Your task to perform on an android device: Open settings on Google Maps Image 0: 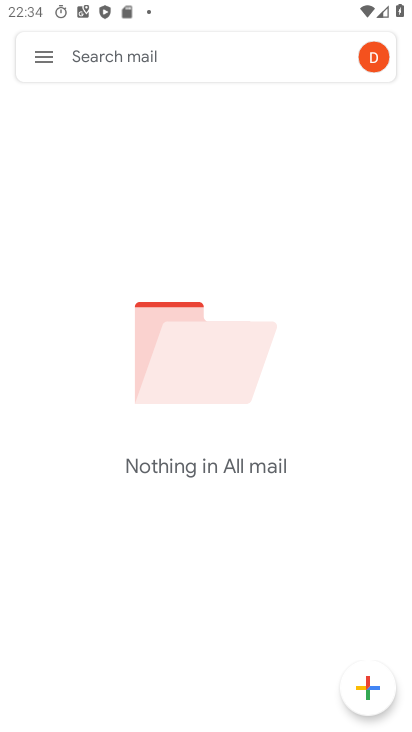
Step 0: press home button
Your task to perform on an android device: Open settings on Google Maps Image 1: 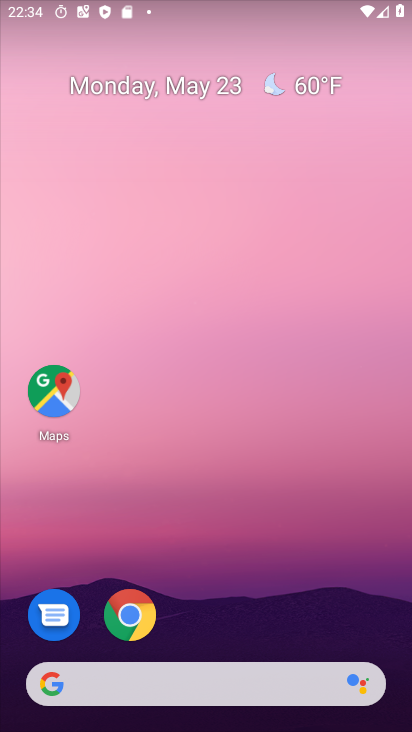
Step 1: click (55, 393)
Your task to perform on an android device: Open settings on Google Maps Image 2: 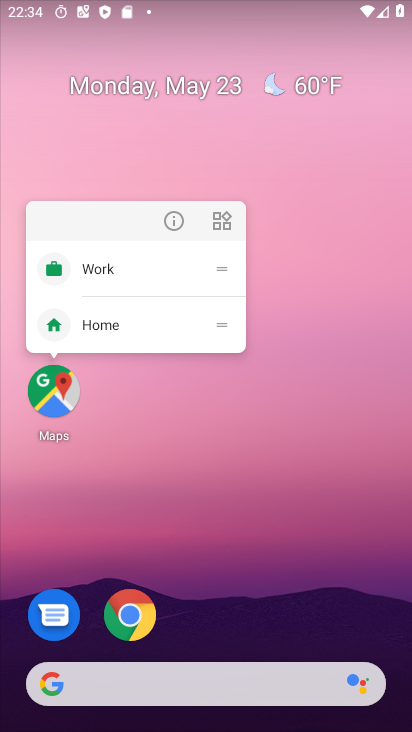
Step 2: click (56, 393)
Your task to perform on an android device: Open settings on Google Maps Image 3: 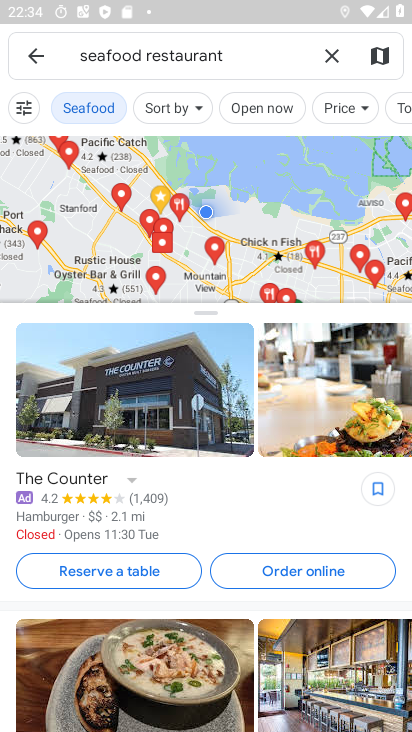
Step 3: click (329, 61)
Your task to perform on an android device: Open settings on Google Maps Image 4: 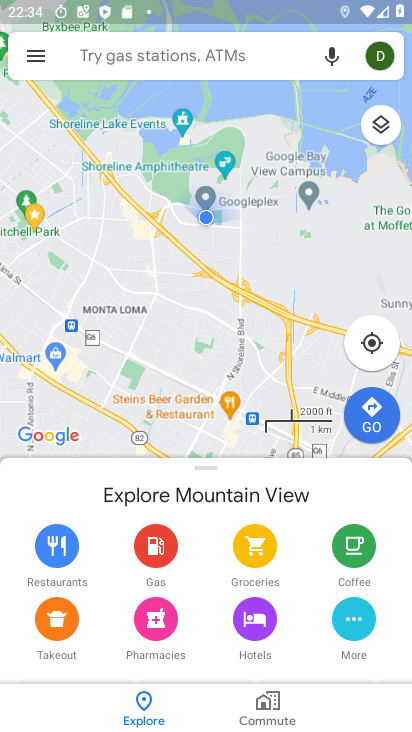
Step 4: click (36, 52)
Your task to perform on an android device: Open settings on Google Maps Image 5: 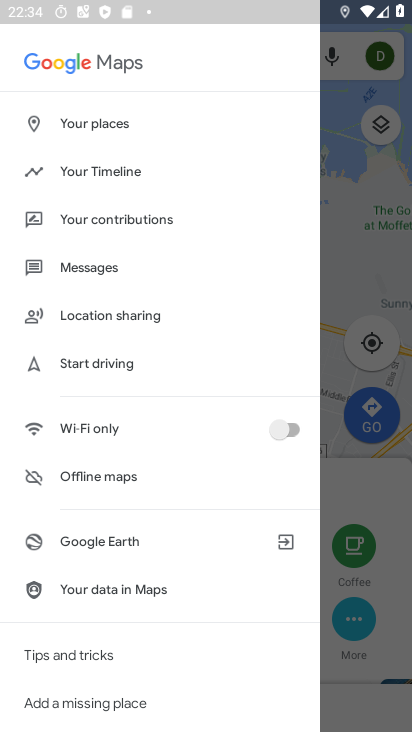
Step 5: drag from (206, 592) to (155, 90)
Your task to perform on an android device: Open settings on Google Maps Image 6: 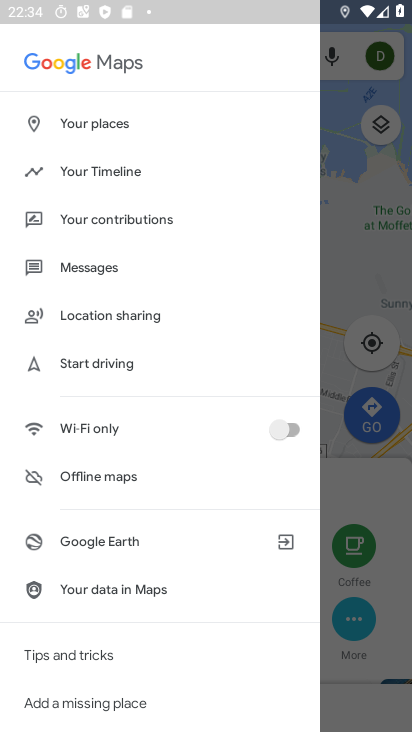
Step 6: drag from (81, 627) to (106, 199)
Your task to perform on an android device: Open settings on Google Maps Image 7: 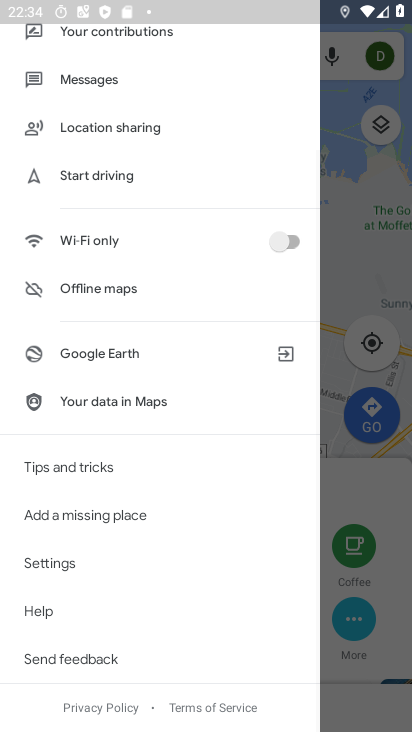
Step 7: click (54, 565)
Your task to perform on an android device: Open settings on Google Maps Image 8: 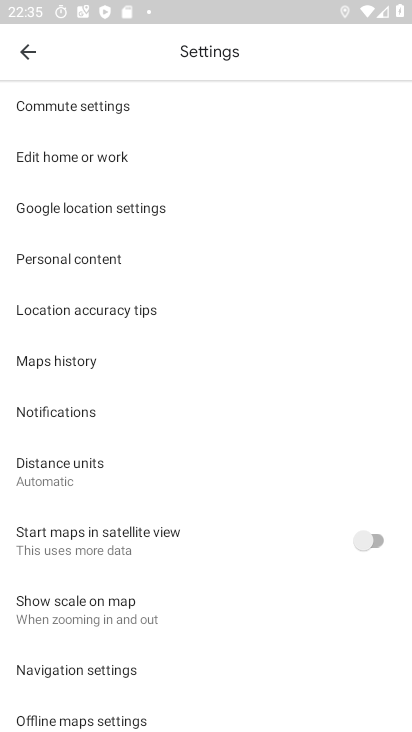
Step 8: task complete